Your task to perform on an android device: Clear the shopping cart on amazon.com. Search for logitech g pro on amazon.com, select the first entry, and add it to the cart. Image 0: 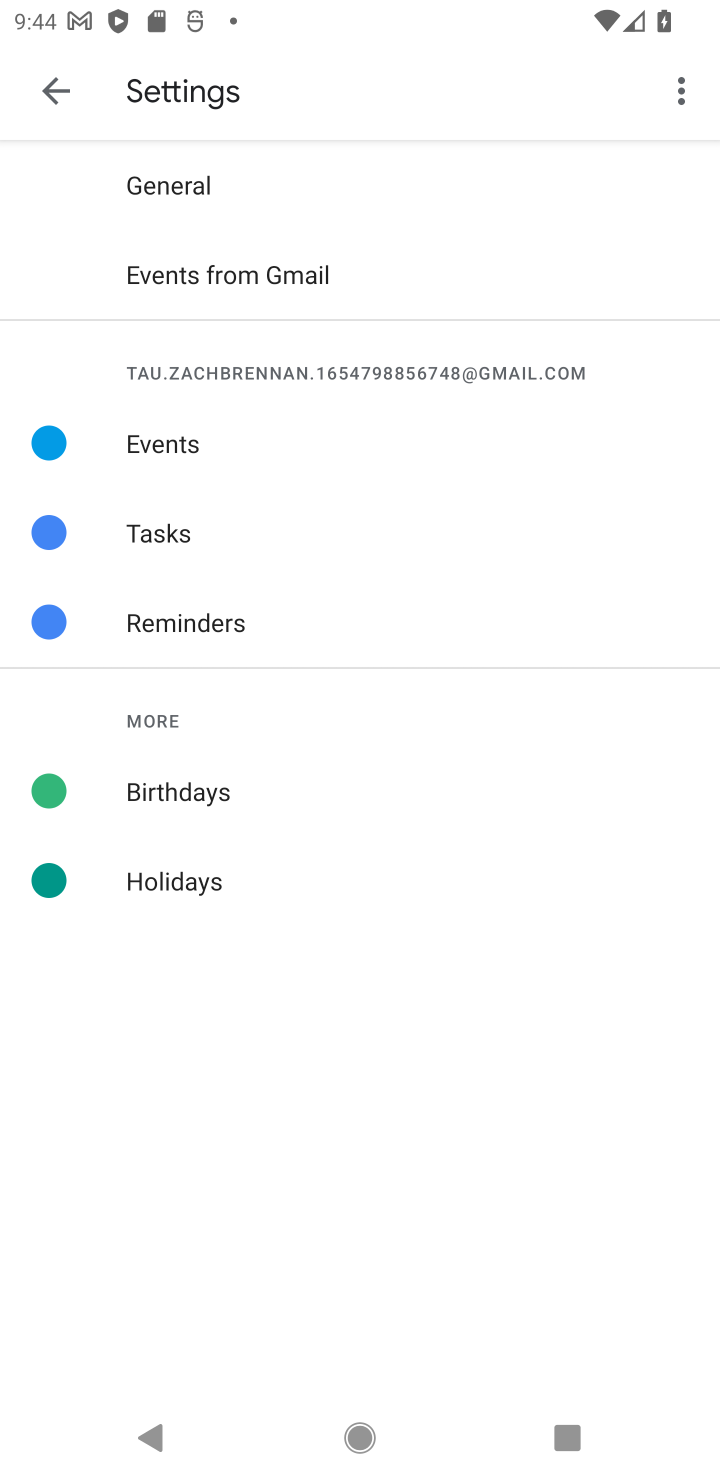
Step 0: press home button
Your task to perform on an android device: Clear the shopping cart on amazon.com. Search for logitech g pro on amazon.com, select the first entry, and add it to the cart. Image 1: 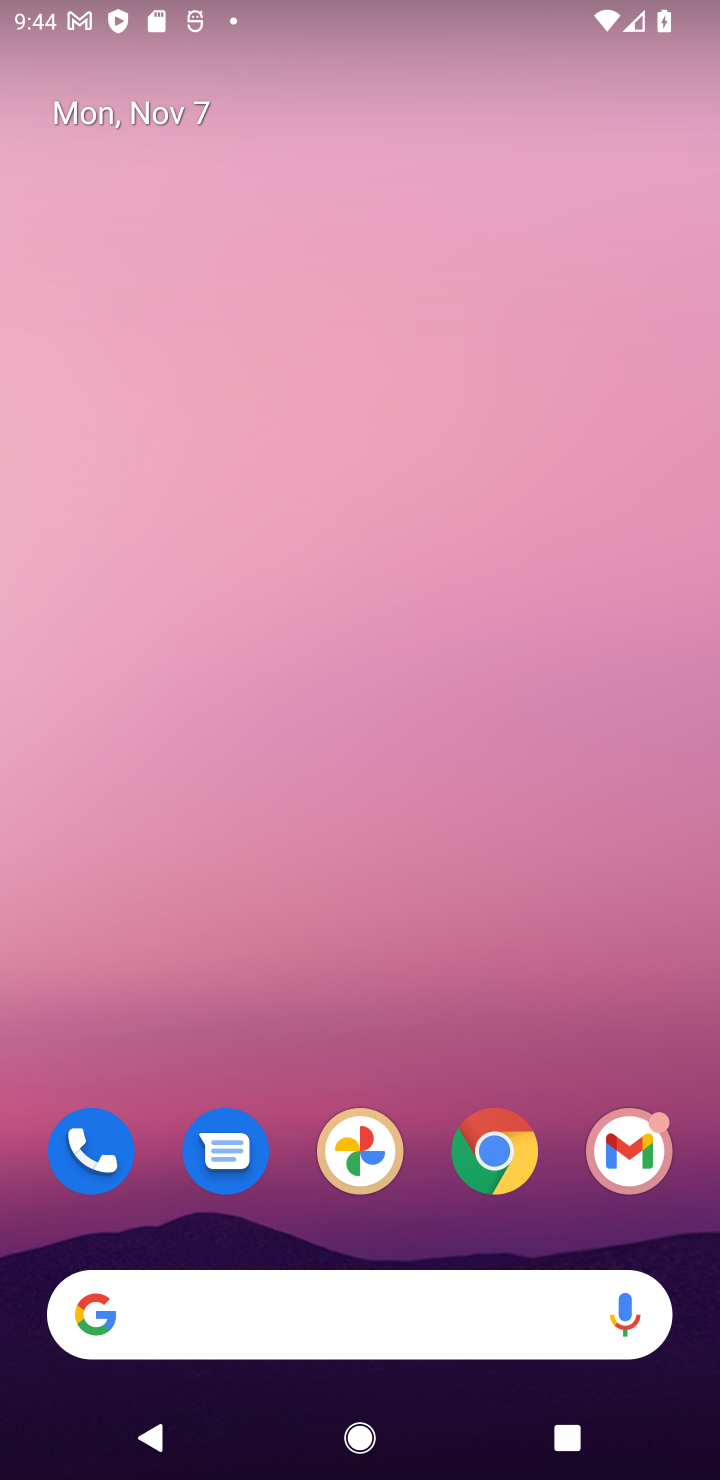
Step 1: click (504, 1157)
Your task to perform on an android device: Clear the shopping cart on amazon.com. Search for logitech g pro on amazon.com, select the first entry, and add it to the cart. Image 2: 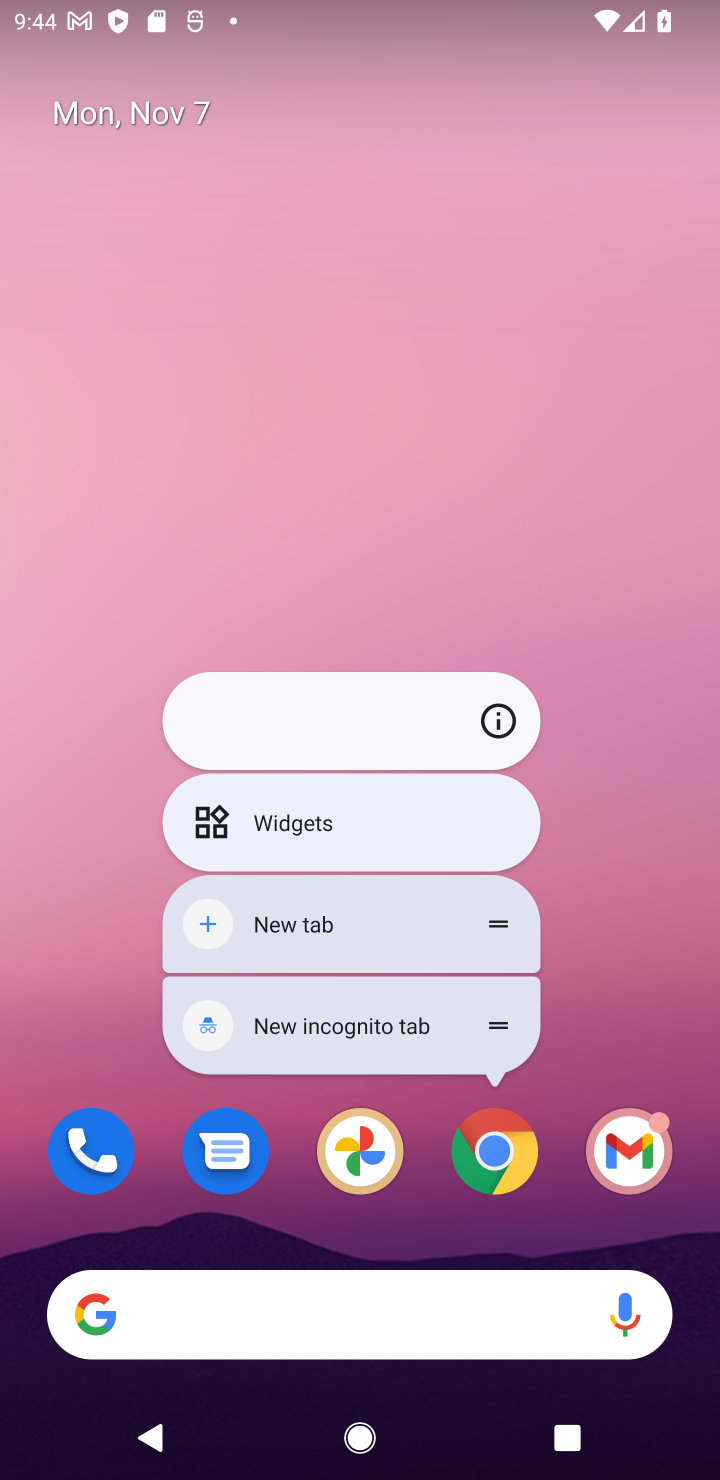
Step 2: click (504, 1163)
Your task to perform on an android device: Clear the shopping cart on amazon.com. Search for logitech g pro on amazon.com, select the first entry, and add it to the cart. Image 3: 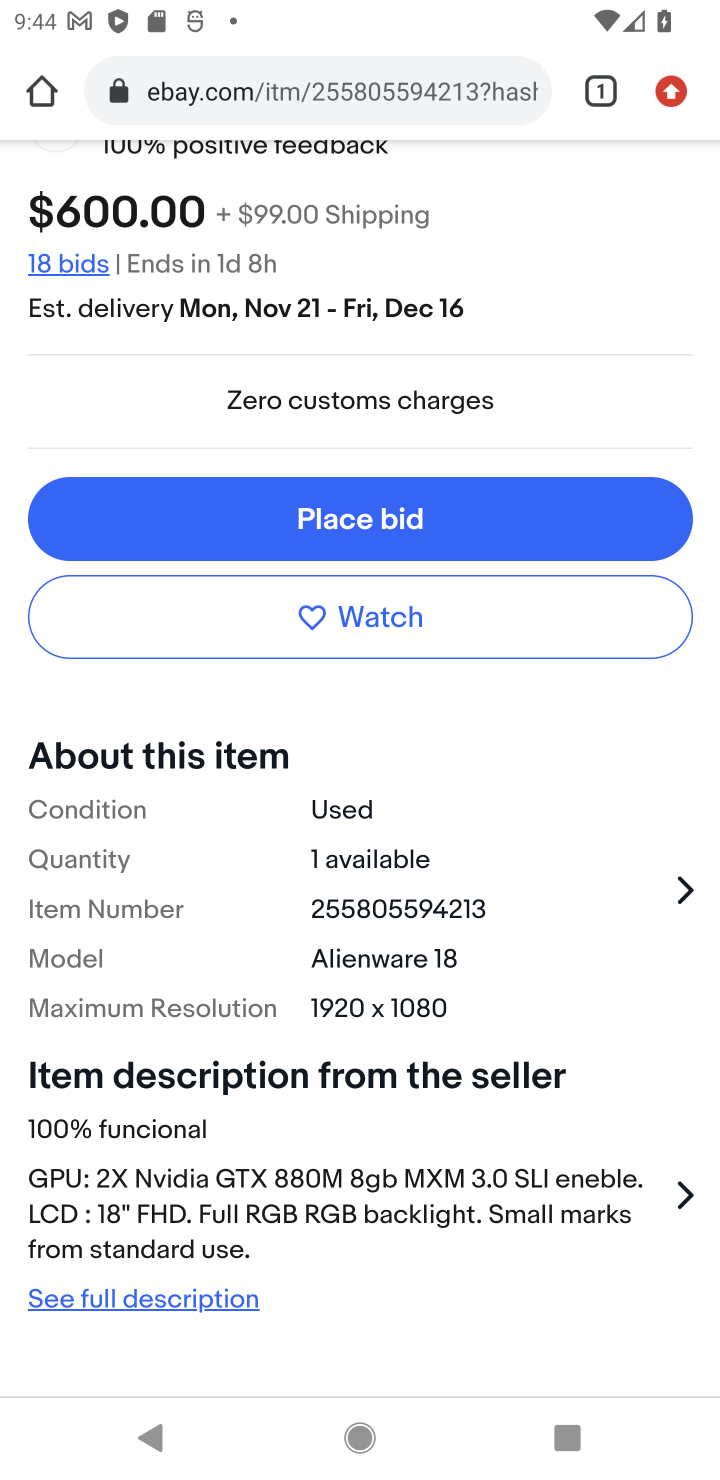
Step 3: click (322, 93)
Your task to perform on an android device: Clear the shopping cart on amazon.com. Search for logitech g pro on amazon.com, select the first entry, and add it to the cart. Image 4: 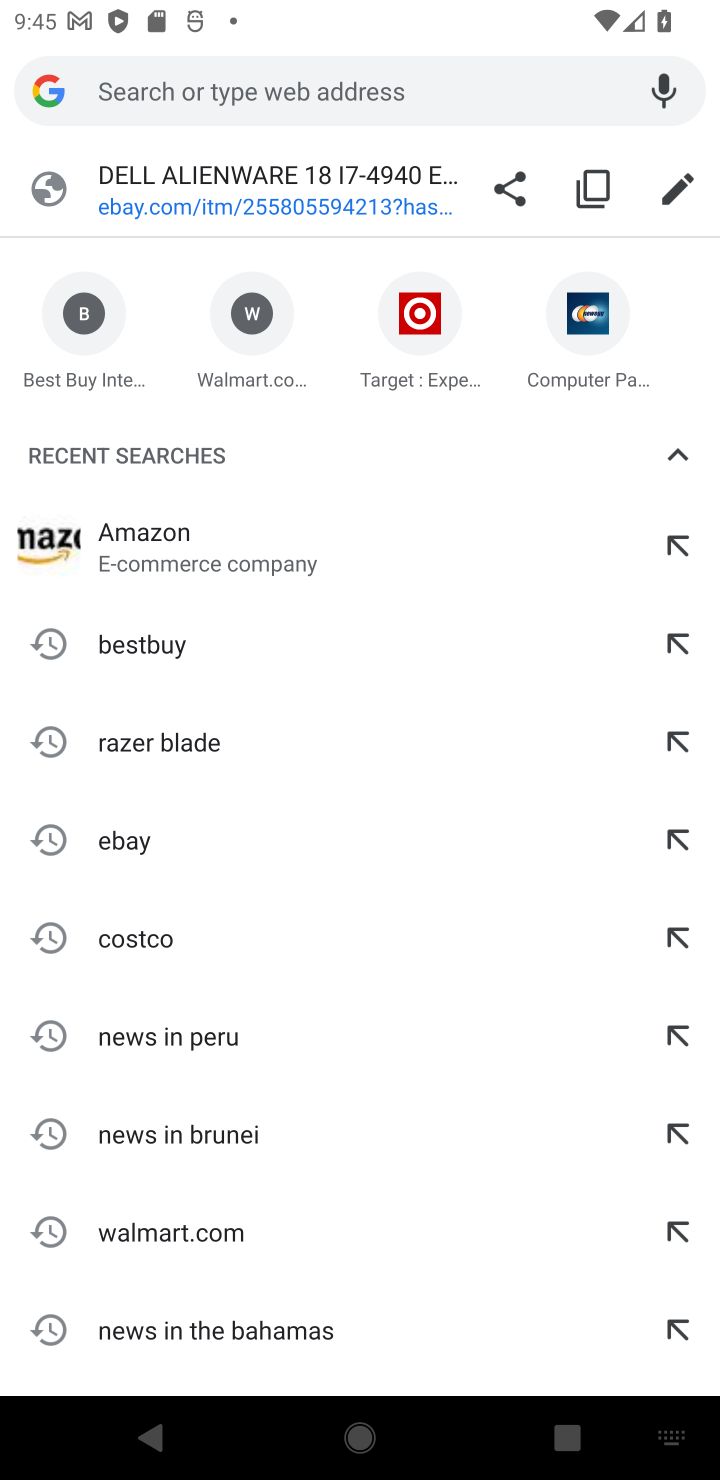
Step 4: click (169, 527)
Your task to perform on an android device: Clear the shopping cart on amazon.com. Search for logitech g pro on amazon.com, select the first entry, and add it to the cart. Image 5: 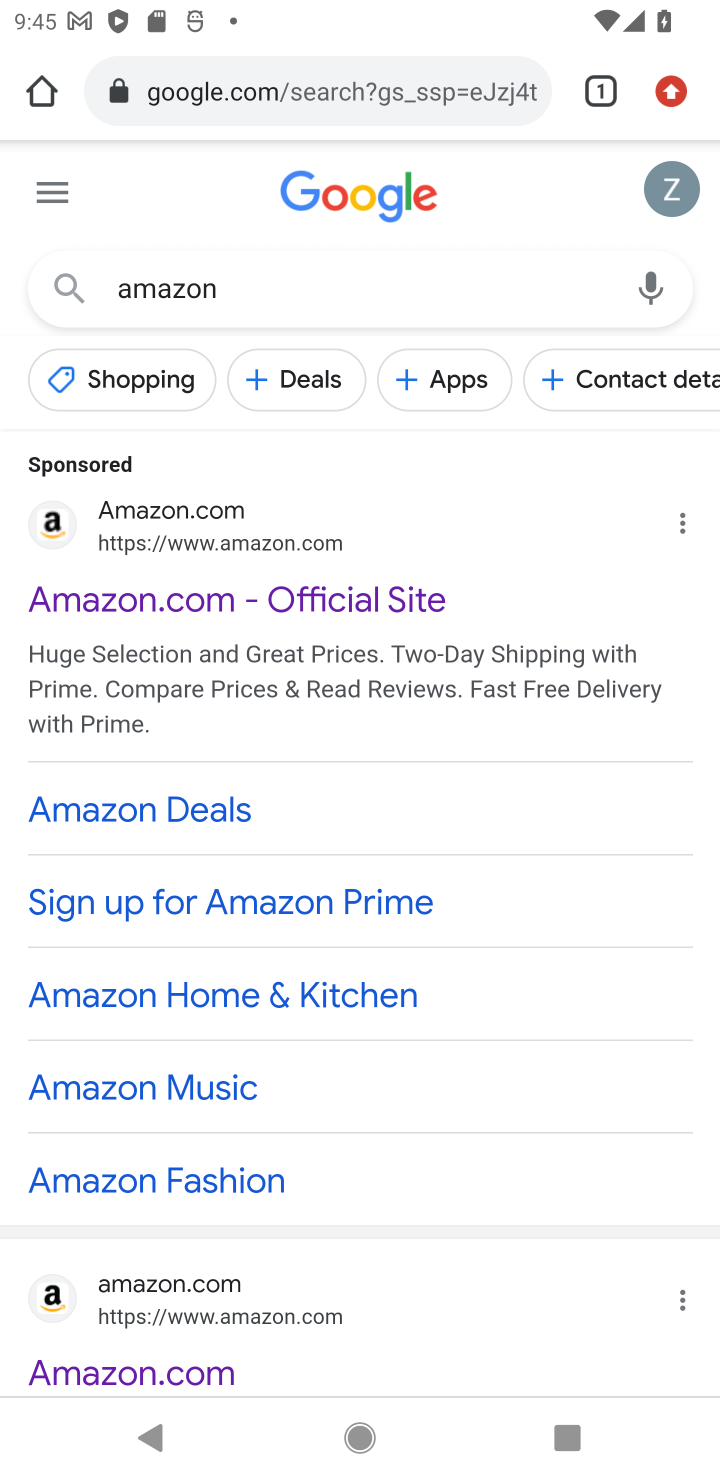
Step 5: click (117, 597)
Your task to perform on an android device: Clear the shopping cart on amazon.com. Search for logitech g pro on amazon.com, select the first entry, and add it to the cart. Image 6: 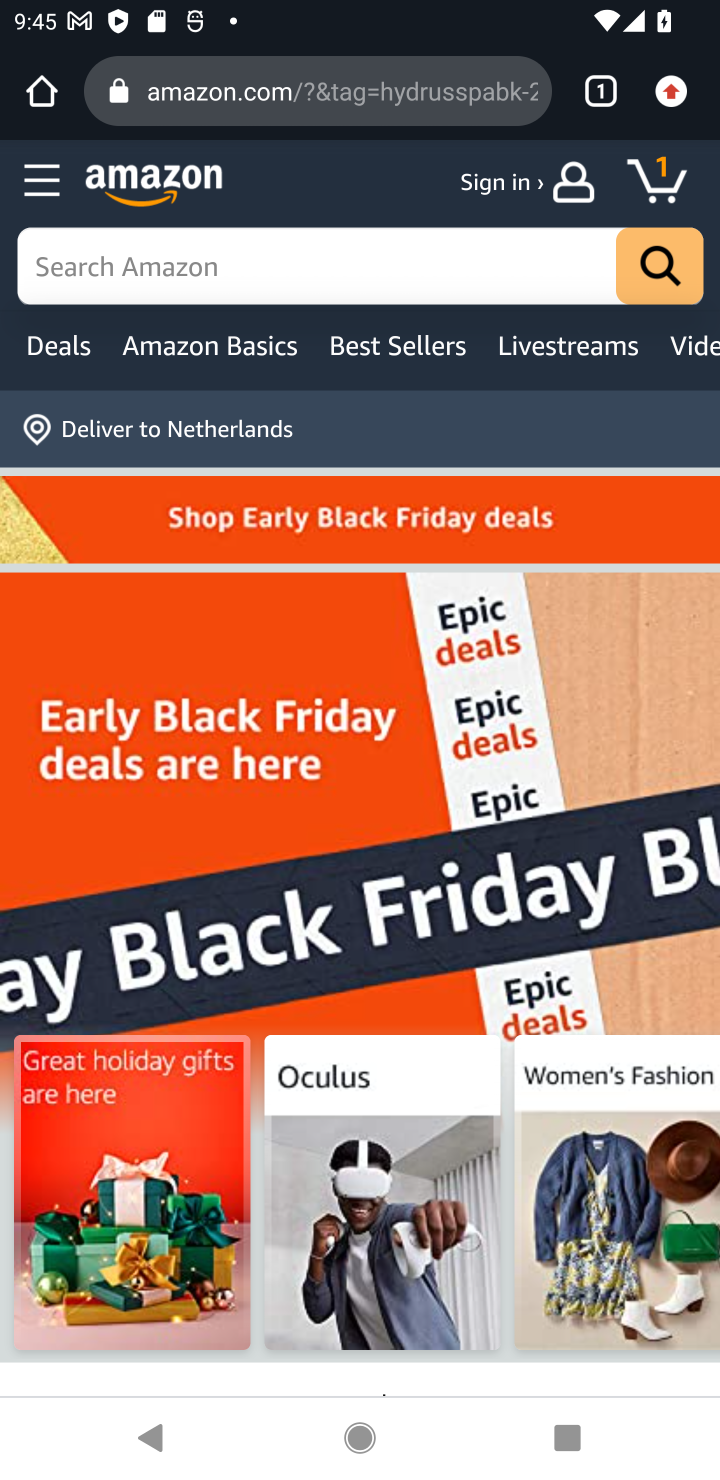
Step 6: click (69, 267)
Your task to perform on an android device: Clear the shopping cart on amazon.com. Search for logitech g pro on amazon.com, select the first entry, and add it to the cart. Image 7: 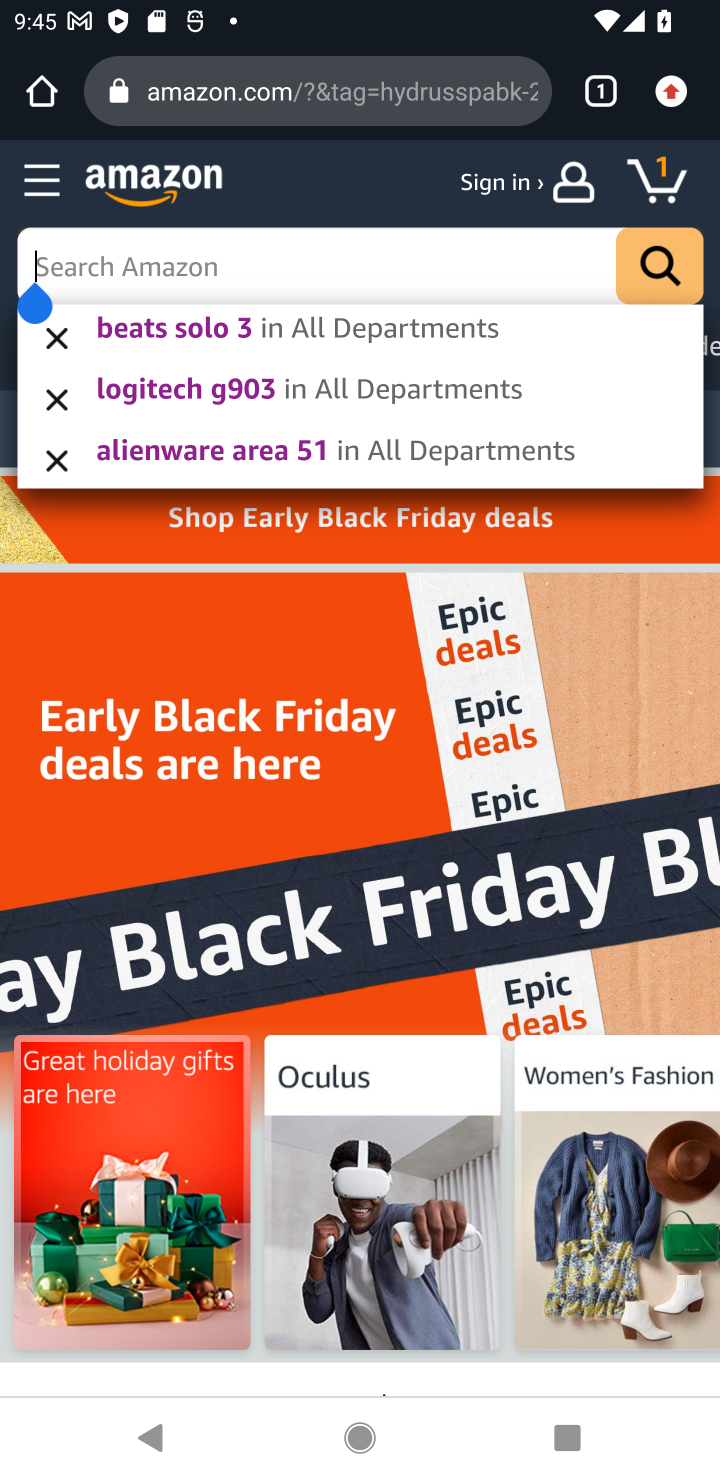
Step 7: press enter
Your task to perform on an android device: Clear the shopping cart on amazon.com. Search for logitech g pro on amazon.com, select the first entry, and add it to the cart. Image 8: 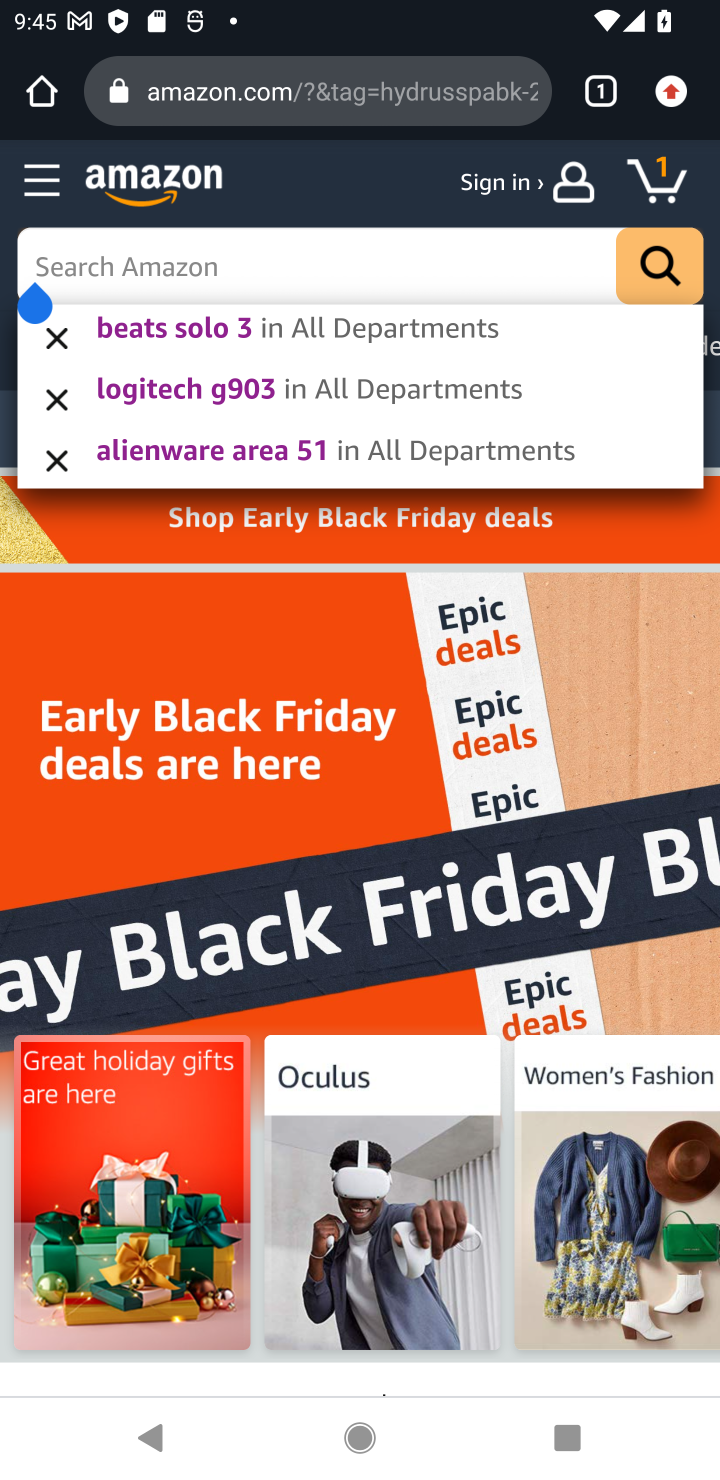
Step 8: type " logitech g pro"
Your task to perform on an android device: Clear the shopping cart on amazon.com. Search for logitech g pro on amazon.com, select the first entry, and add it to the cart. Image 9: 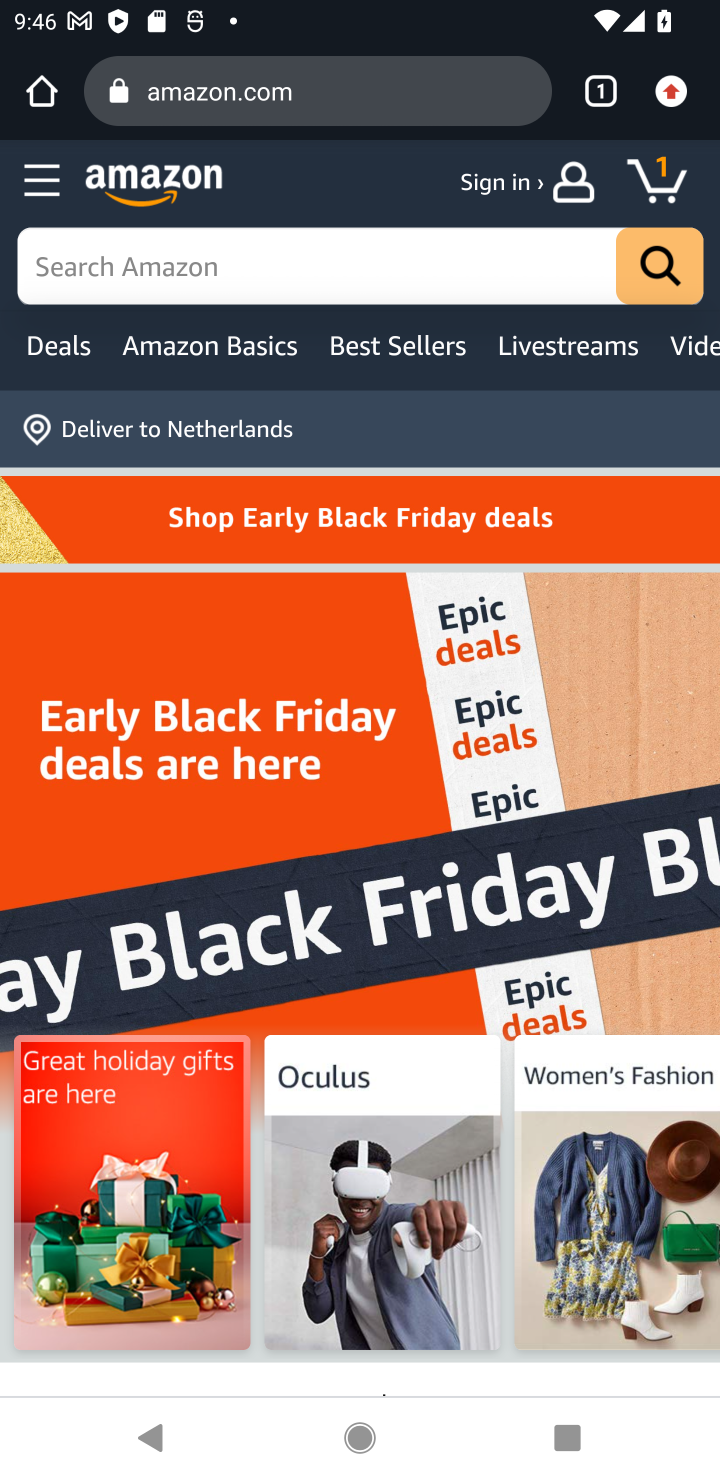
Step 9: click (219, 270)
Your task to perform on an android device: Clear the shopping cart on amazon.com. Search for logitech g pro on amazon.com, select the first entry, and add it to the cart. Image 10: 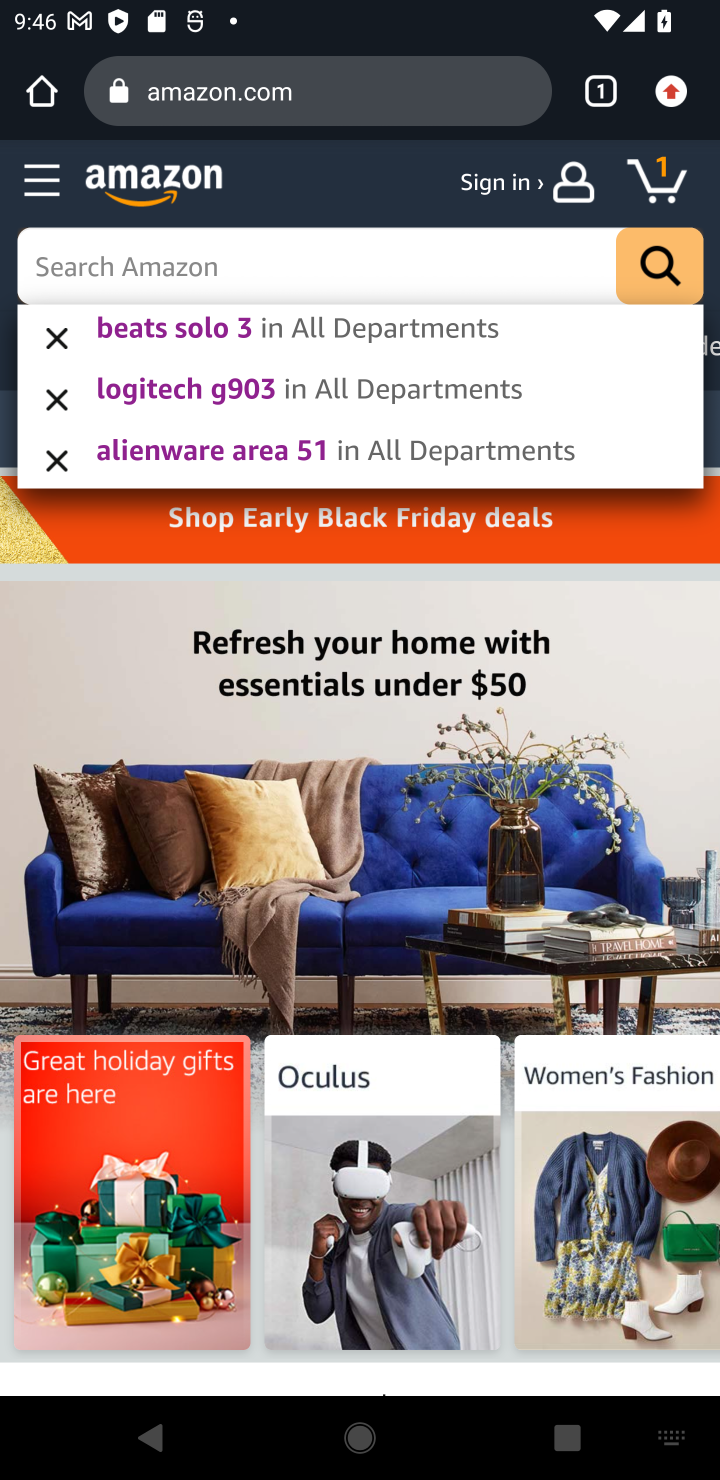
Step 10: press enter
Your task to perform on an android device: Clear the shopping cart on amazon.com. Search for logitech g pro on amazon.com, select the first entry, and add it to the cart. Image 11: 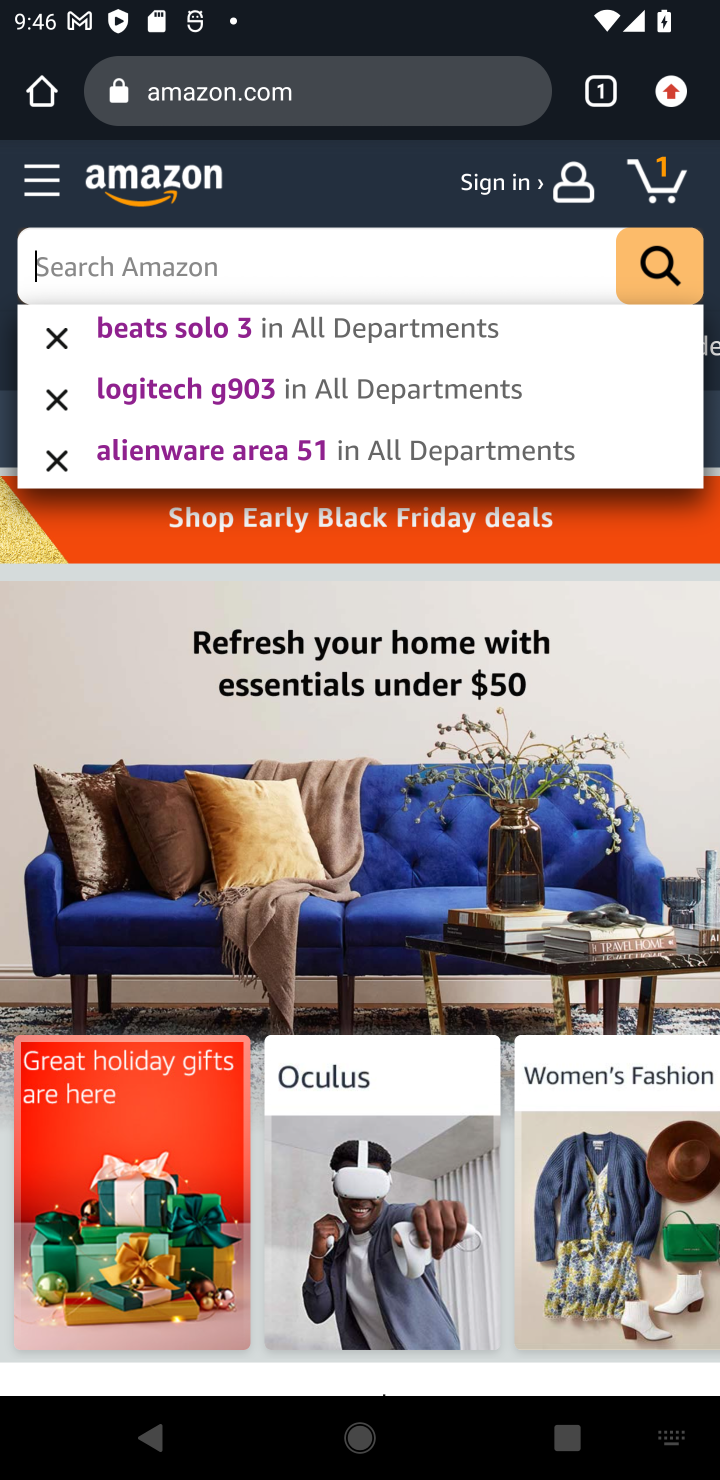
Step 11: type " logitech g pro"
Your task to perform on an android device: Clear the shopping cart on amazon.com. Search for logitech g pro on amazon.com, select the first entry, and add it to the cart. Image 12: 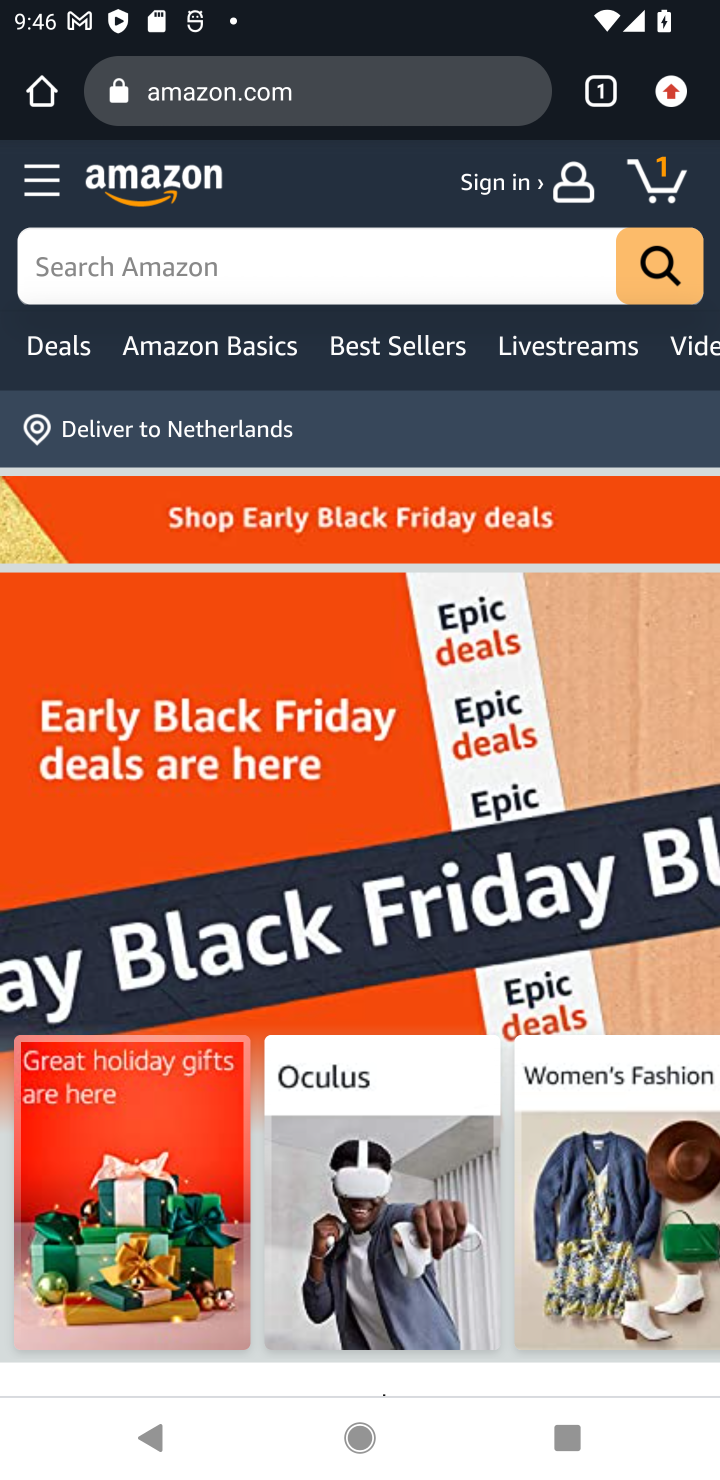
Step 12: click (136, 260)
Your task to perform on an android device: Clear the shopping cart on amazon.com. Search for logitech g pro on amazon.com, select the first entry, and add it to the cart. Image 13: 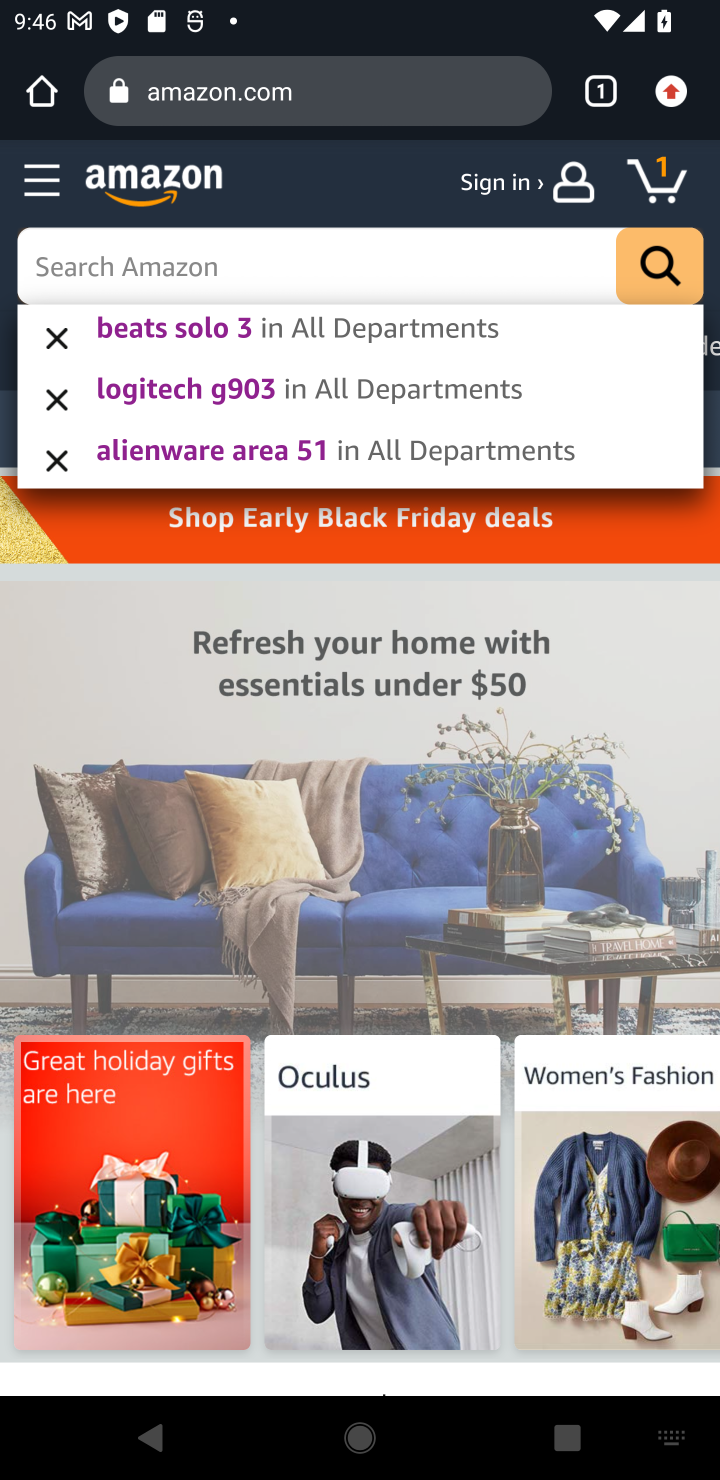
Step 13: press enter
Your task to perform on an android device: Clear the shopping cart on amazon.com. Search for logitech g pro on amazon.com, select the first entry, and add it to the cart. Image 14: 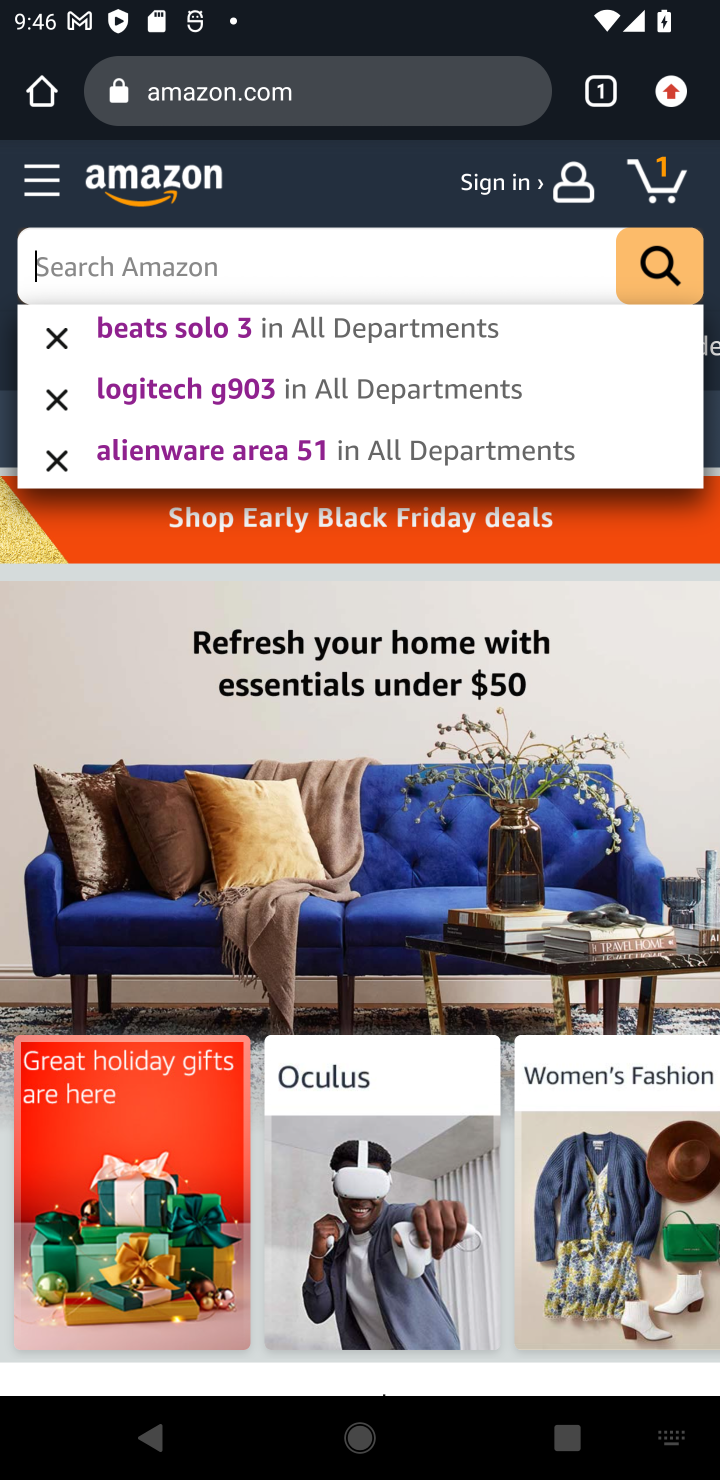
Step 14: type " logitech g pro"
Your task to perform on an android device: Clear the shopping cart on amazon.com. Search for logitech g pro on amazon.com, select the first entry, and add it to the cart. Image 15: 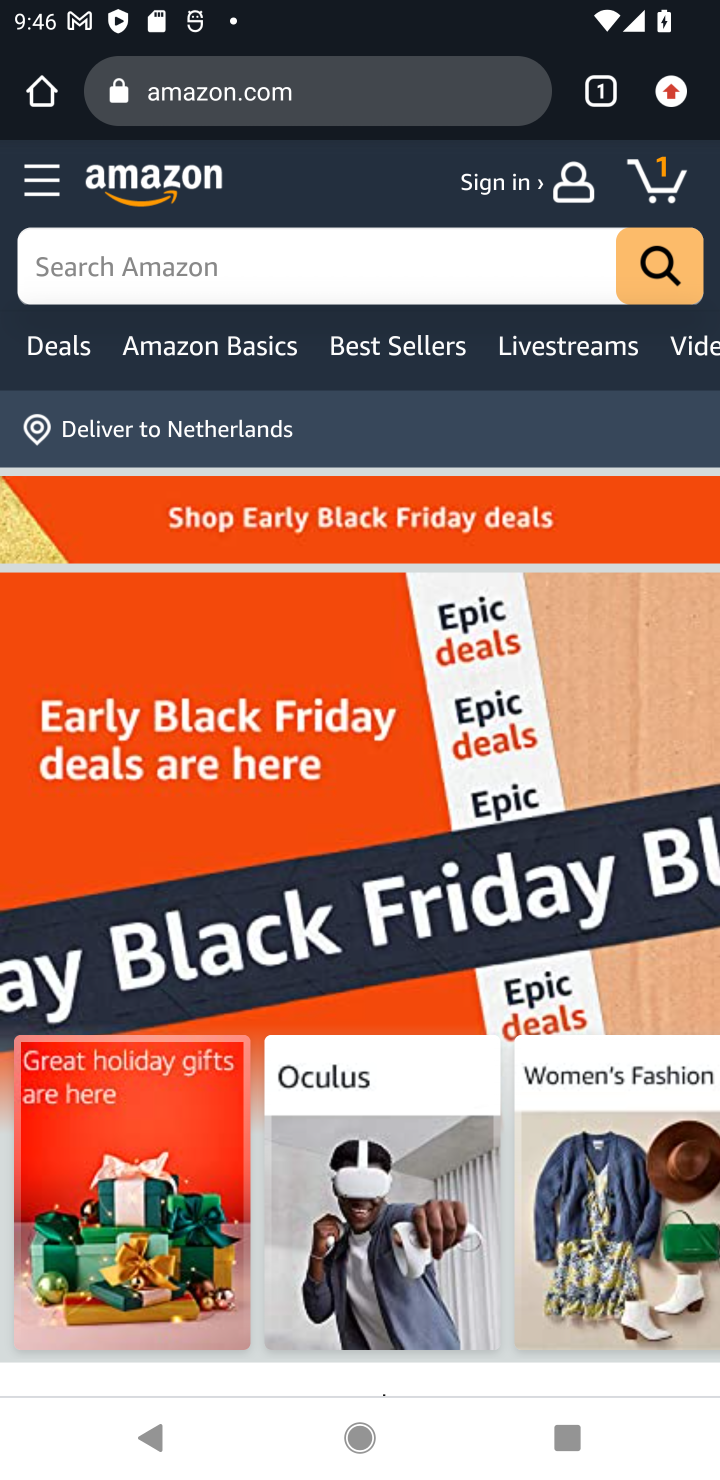
Step 15: click (352, 272)
Your task to perform on an android device: Clear the shopping cart on amazon.com. Search for logitech g pro on amazon.com, select the first entry, and add it to the cart. Image 16: 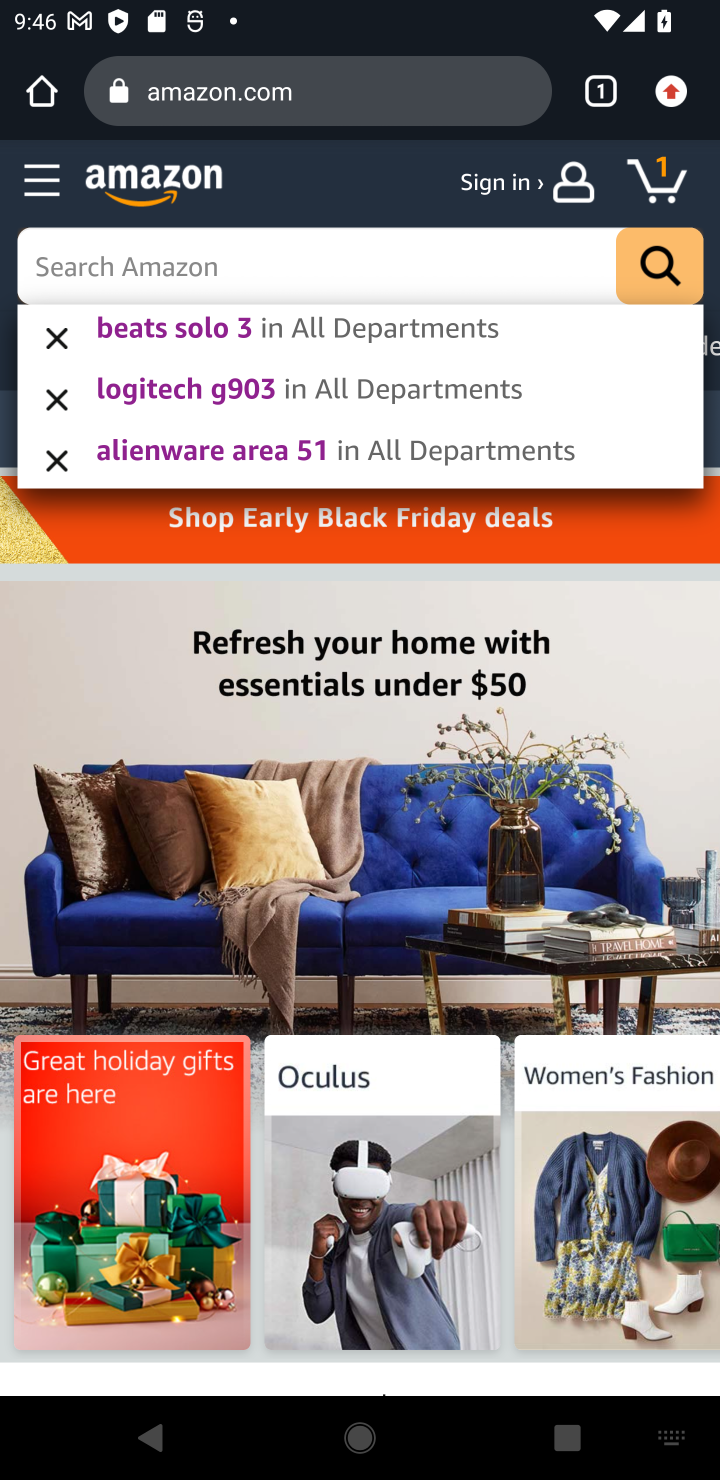
Step 16: type " logitech g pro"
Your task to perform on an android device: Clear the shopping cart on amazon.com. Search for logitech g pro on amazon.com, select the first entry, and add it to the cart. Image 17: 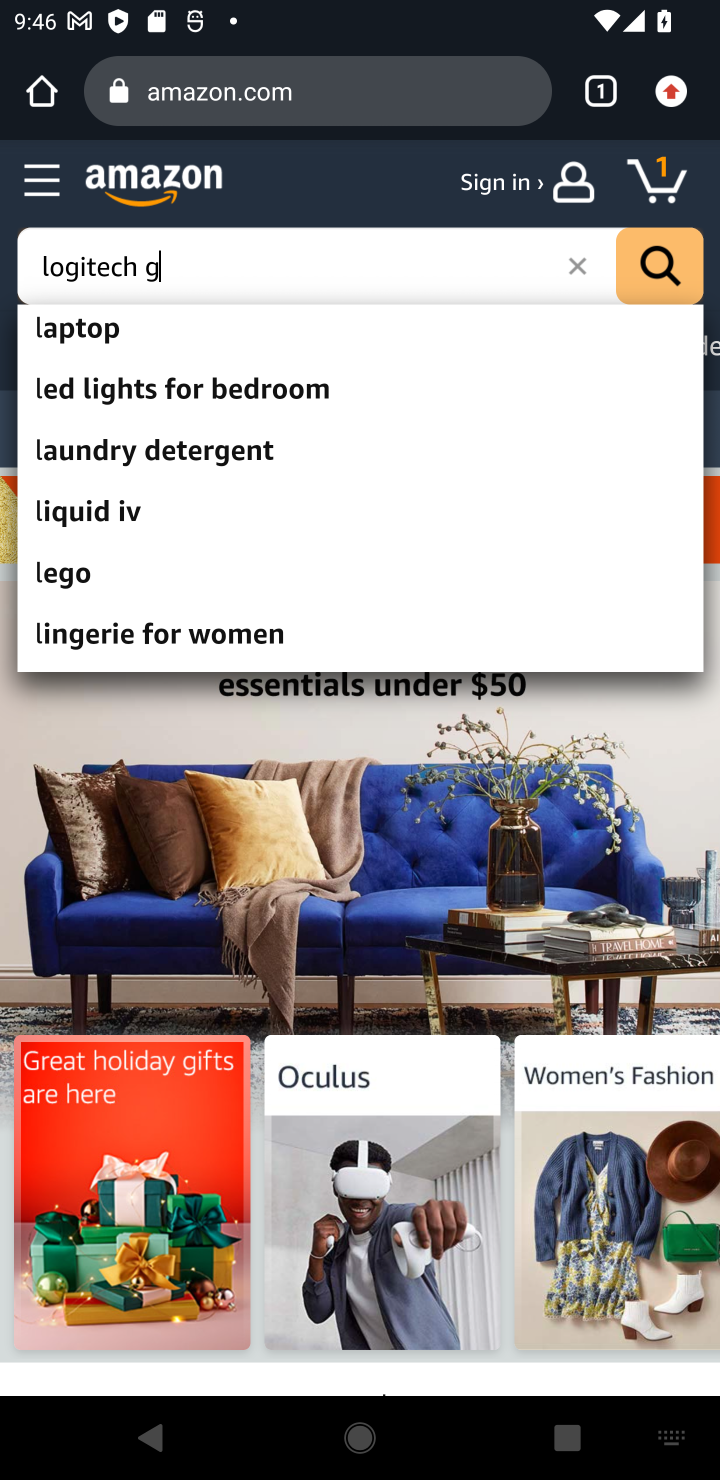
Step 17: press enter
Your task to perform on an android device: Clear the shopping cart on amazon.com. Search for logitech g pro on amazon.com, select the first entry, and add it to the cart. Image 18: 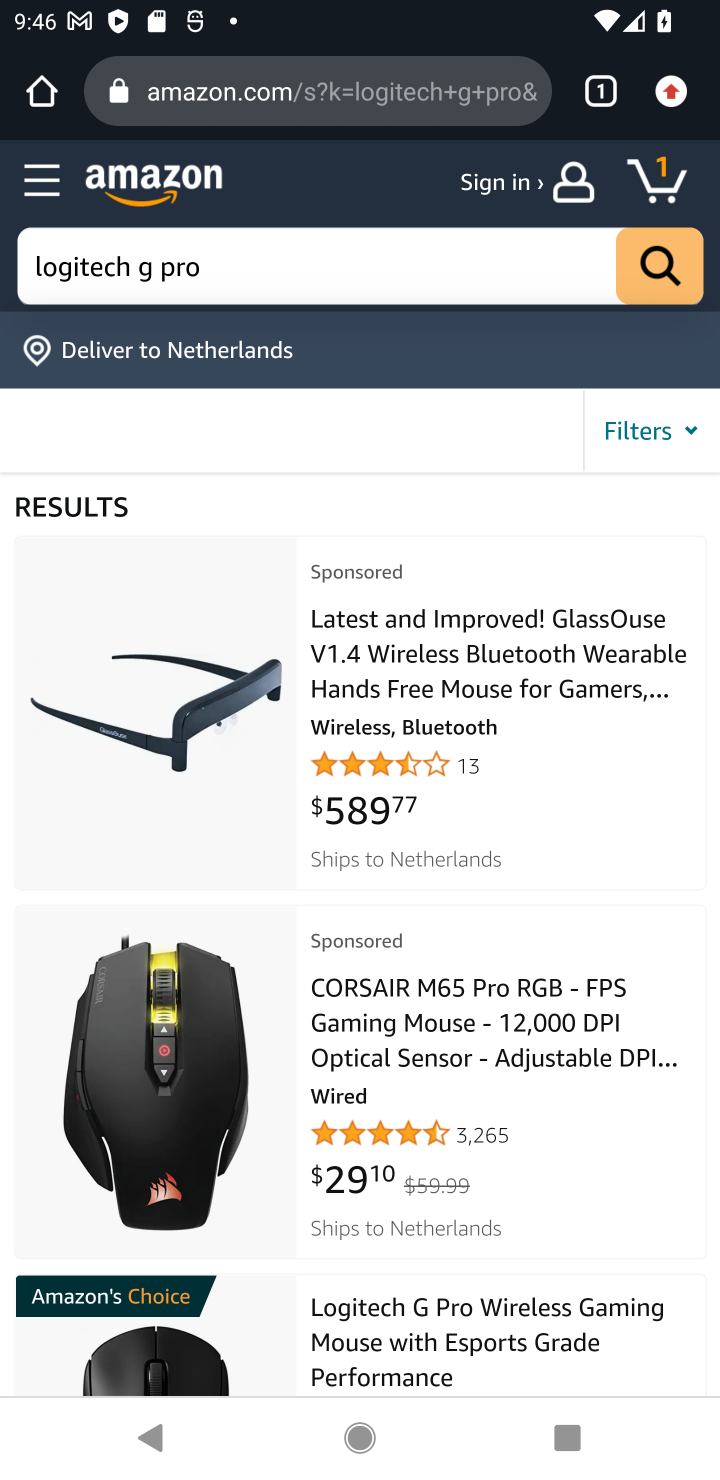
Step 18: task complete